Your task to perform on an android device: open app "Yahoo Mail" (install if not already installed), go to login, and select forgot password Image 0: 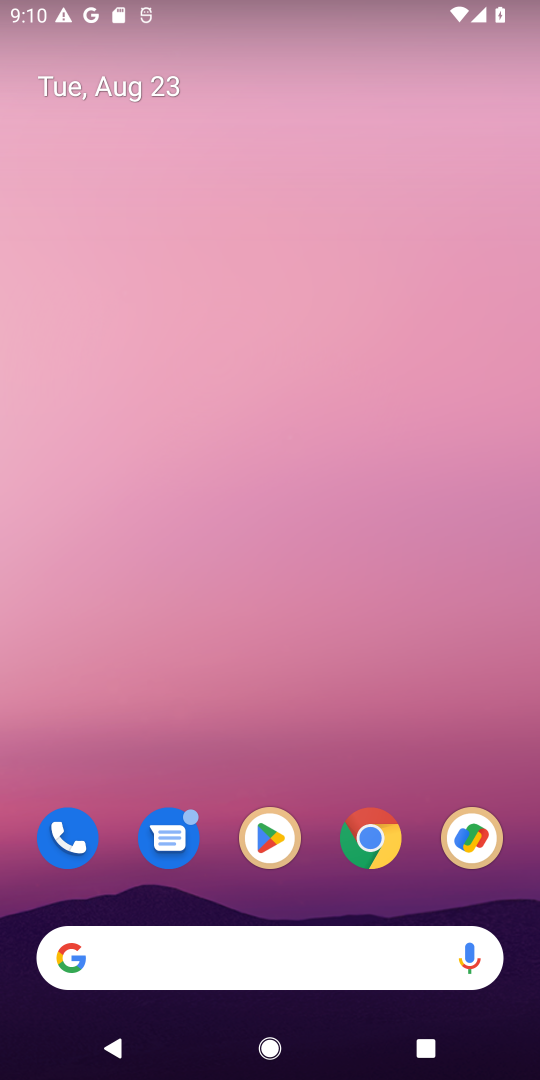
Step 0: click (282, 839)
Your task to perform on an android device: open app "Yahoo Mail" (install if not already installed), go to login, and select forgot password Image 1: 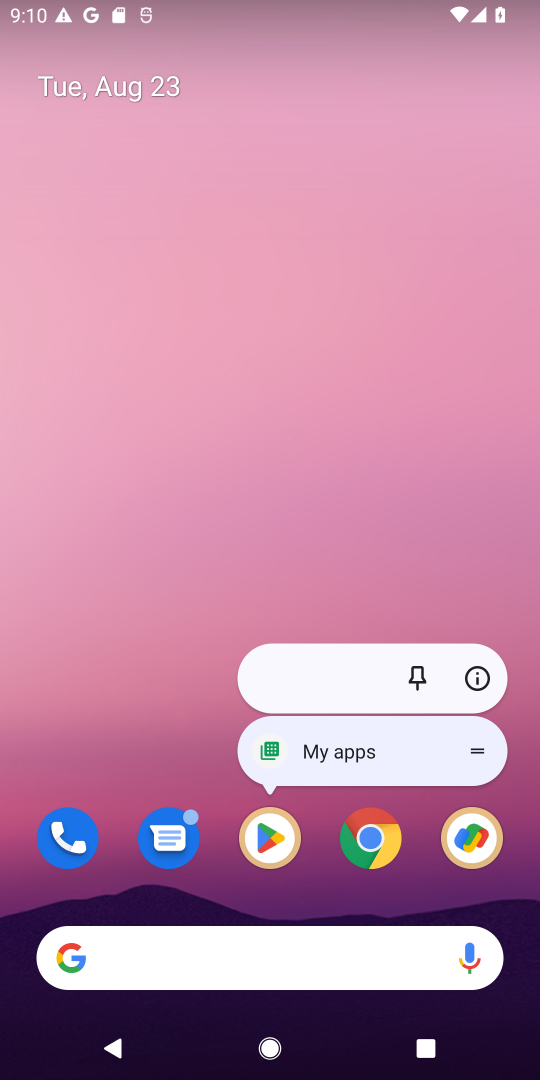
Step 1: click (273, 822)
Your task to perform on an android device: open app "Yahoo Mail" (install if not already installed), go to login, and select forgot password Image 2: 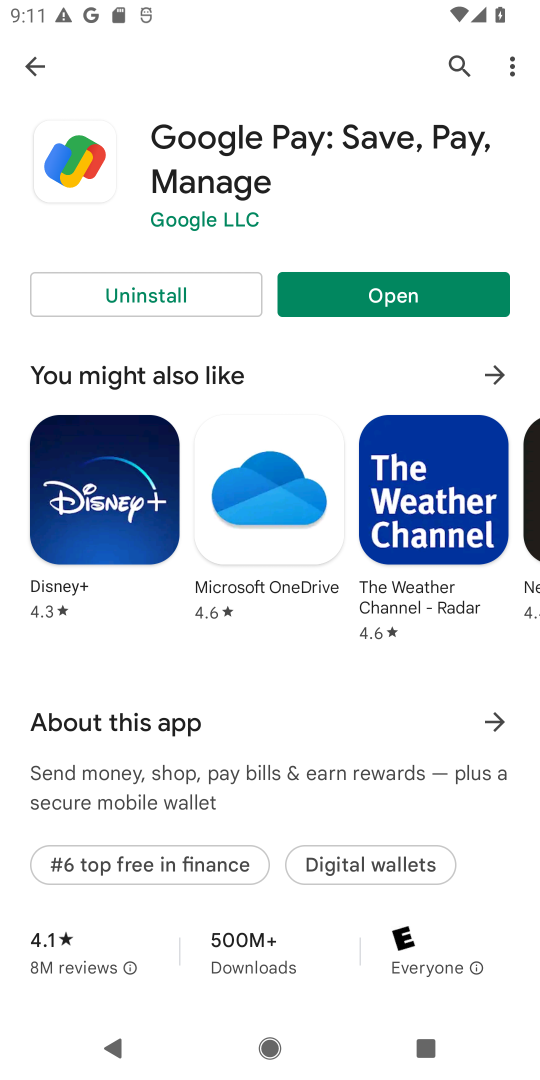
Step 2: click (444, 64)
Your task to perform on an android device: open app "Yahoo Mail" (install if not already installed), go to login, and select forgot password Image 3: 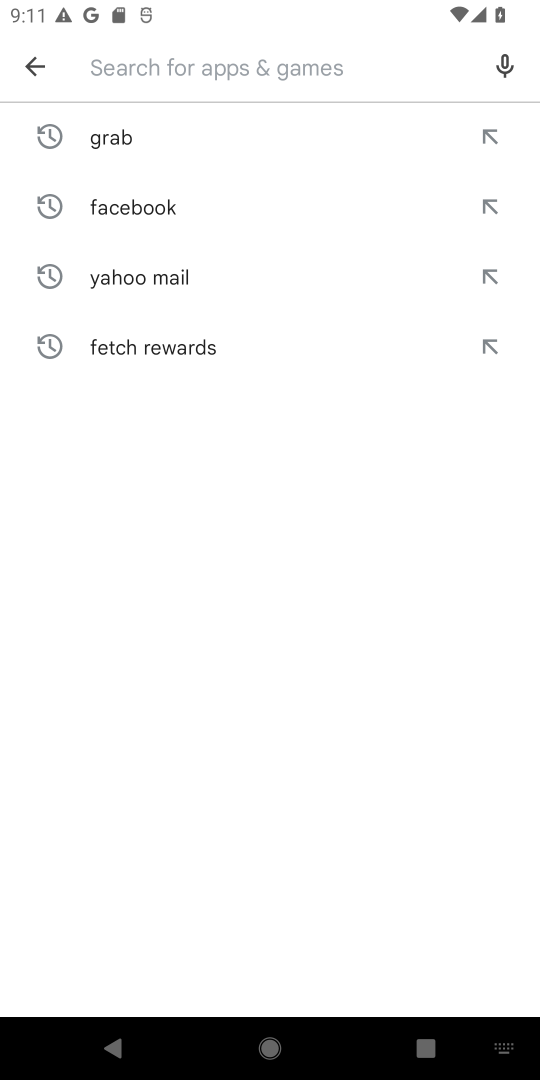
Step 3: type "Yahoo Mail"
Your task to perform on an android device: open app "Yahoo Mail" (install if not already installed), go to login, and select forgot password Image 4: 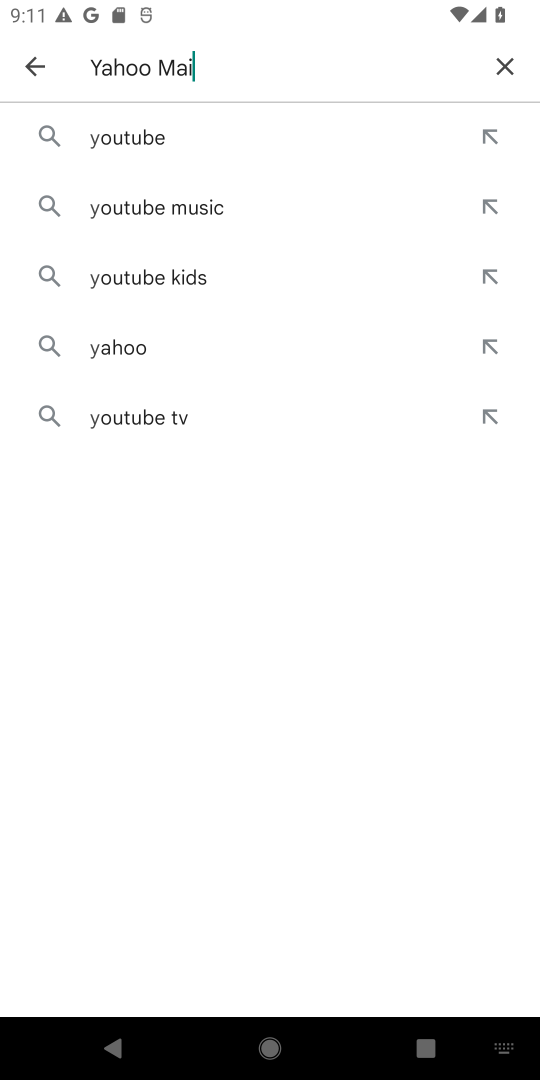
Step 4: type ""
Your task to perform on an android device: open app "Yahoo Mail" (install if not already installed), go to login, and select forgot password Image 5: 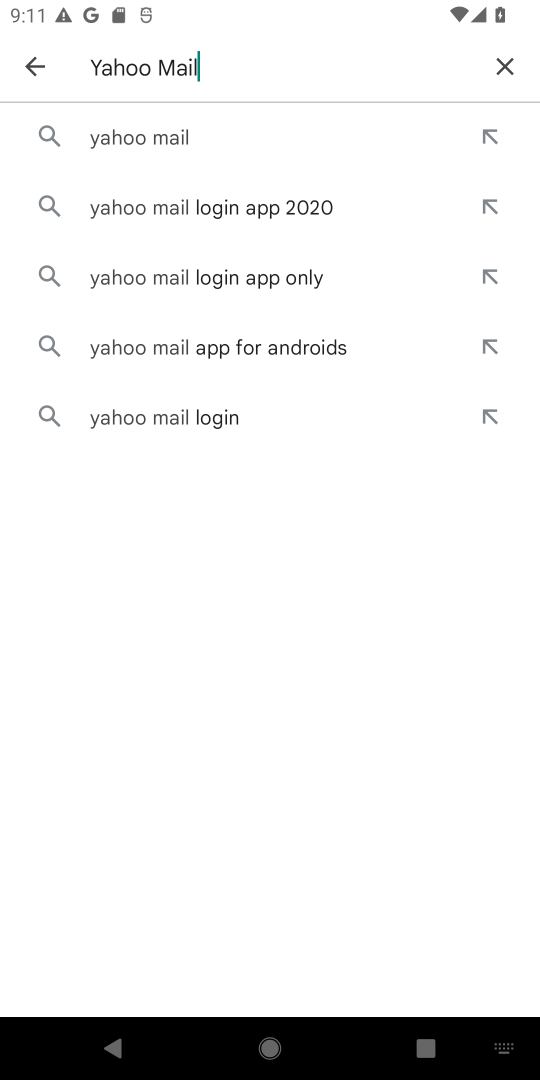
Step 5: click (161, 140)
Your task to perform on an android device: open app "Yahoo Mail" (install if not already installed), go to login, and select forgot password Image 6: 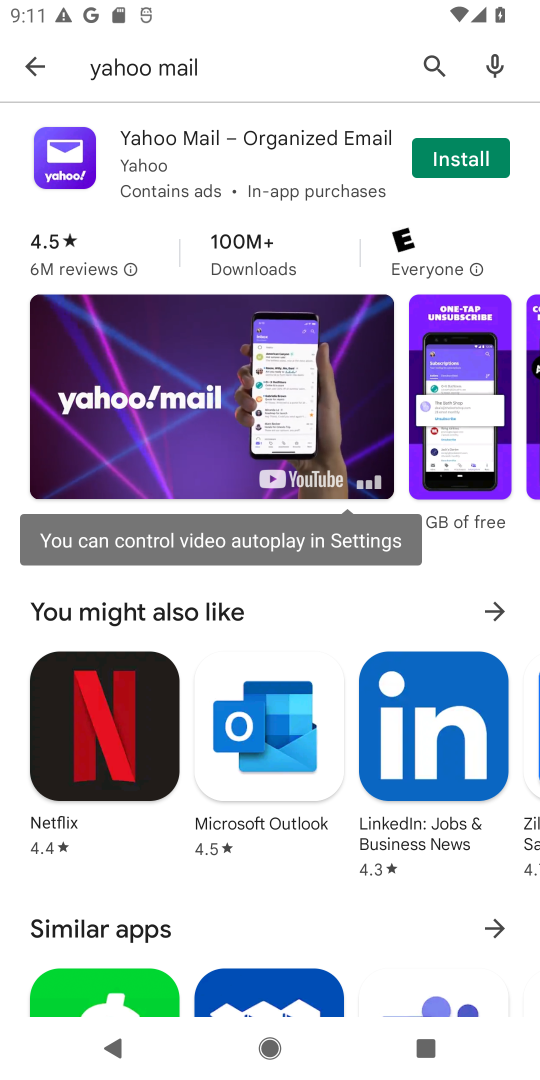
Step 6: click (450, 156)
Your task to perform on an android device: open app "Yahoo Mail" (install if not already installed), go to login, and select forgot password Image 7: 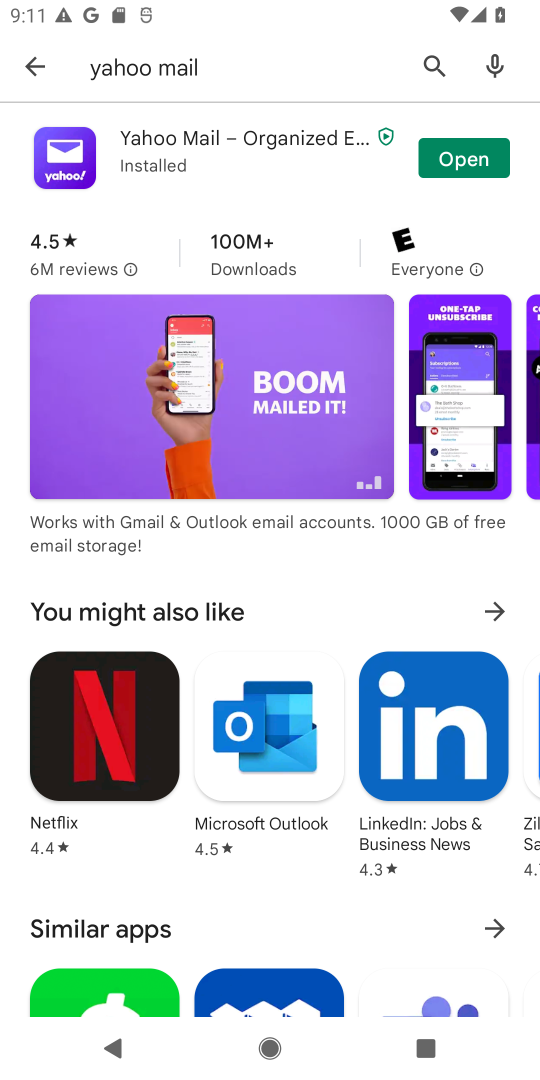
Step 7: click (450, 156)
Your task to perform on an android device: open app "Yahoo Mail" (install if not already installed), go to login, and select forgot password Image 8: 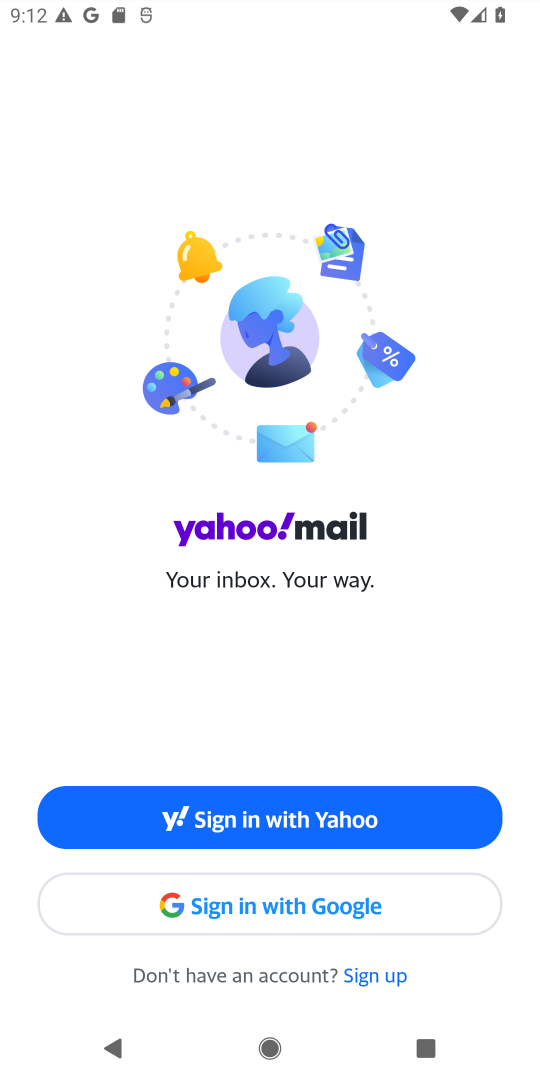
Step 8: task complete